Your task to perform on an android device: Open the calendar and show me this week's events? Image 0: 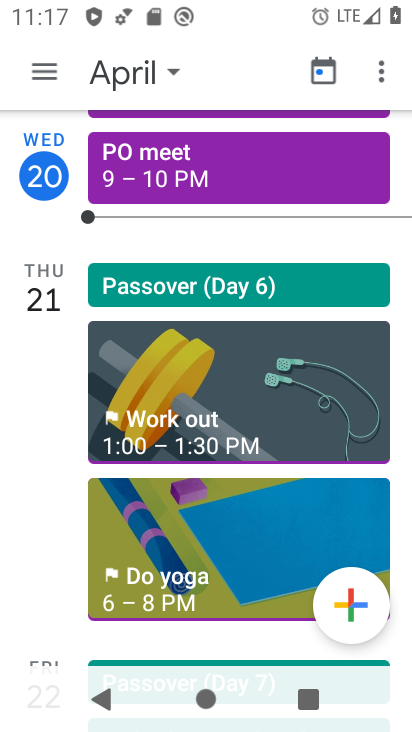
Step 0: drag from (288, 537) to (287, 243)
Your task to perform on an android device: Open the calendar and show me this week's events? Image 1: 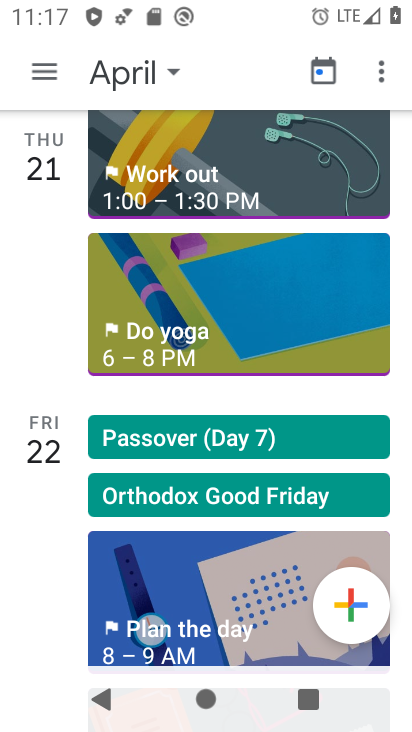
Step 1: task complete